Your task to perform on an android device: turn on showing notifications on the lock screen Image 0: 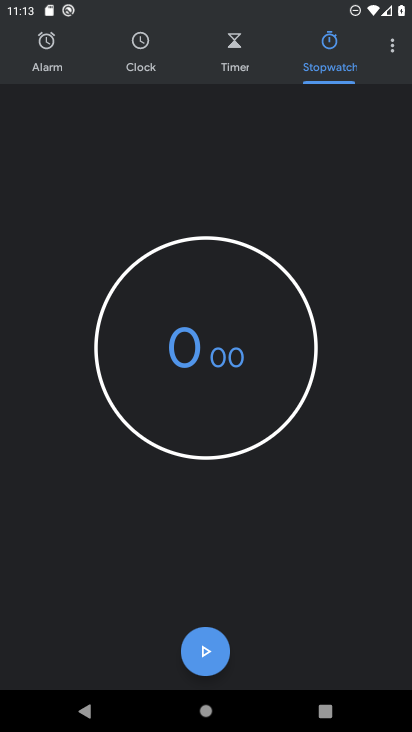
Step 0: press home button
Your task to perform on an android device: turn on showing notifications on the lock screen Image 1: 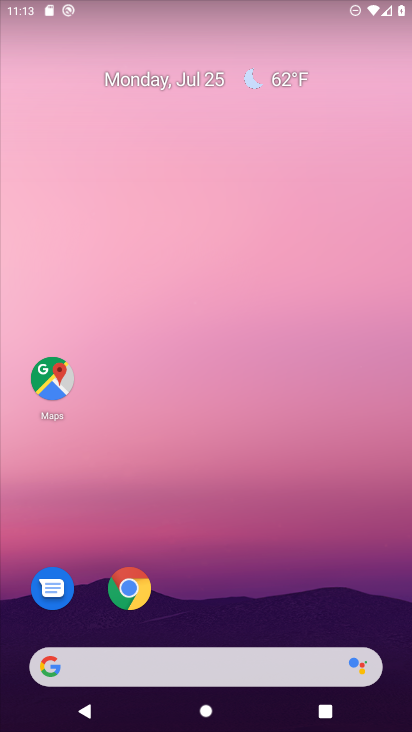
Step 1: drag from (50, 549) to (205, 192)
Your task to perform on an android device: turn on showing notifications on the lock screen Image 2: 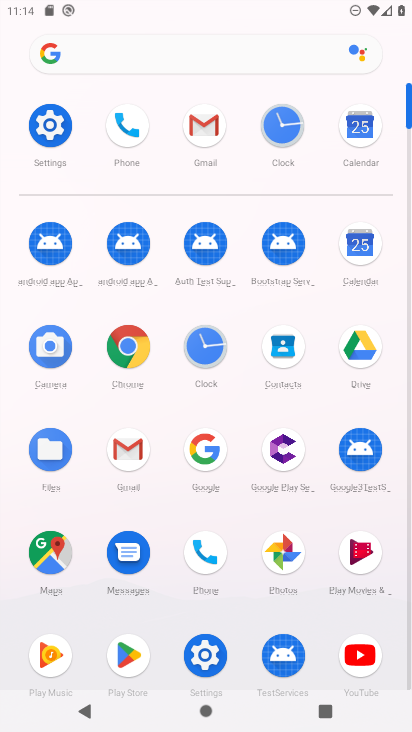
Step 2: click (36, 118)
Your task to perform on an android device: turn on showing notifications on the lock screen Image 3: 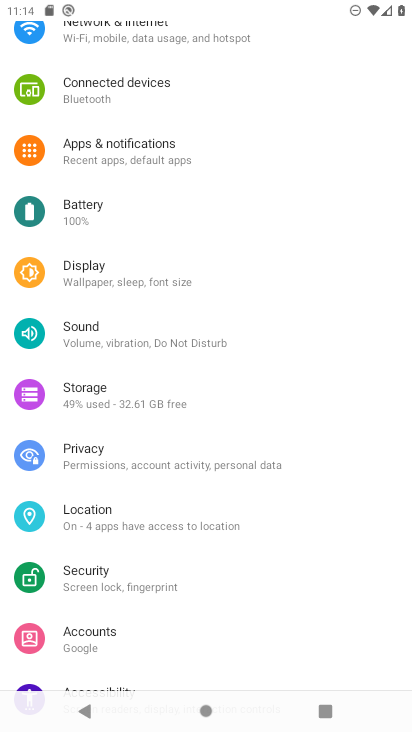
Step 3: click (166, 168)
Your task to perform on an android device: turn on showing notifications on the lock screen Image 4: 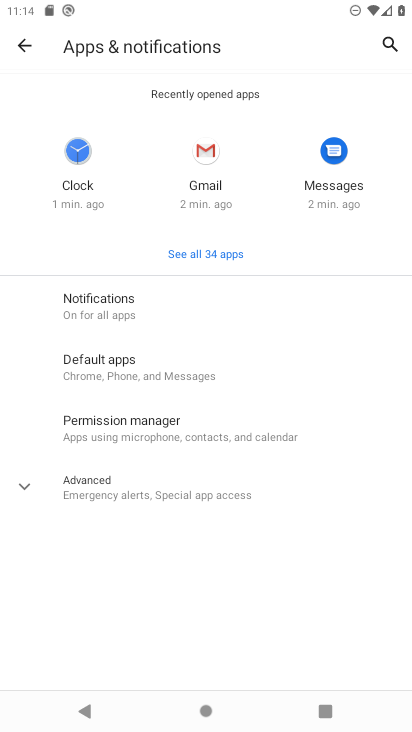
Step 4: click (119, 307)
Your task to perform on an android device: turn on showing notifications on the lock screen Image 5: 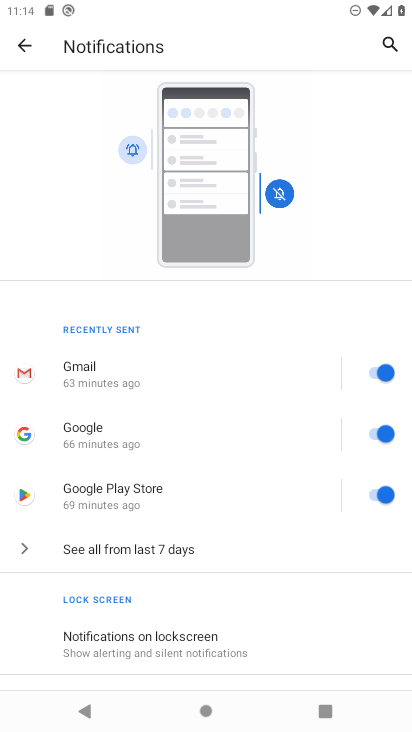
Step 5: click (164, 634)
Your task to perform on an android device: turn on showing notifications on the lock screen Image 6: 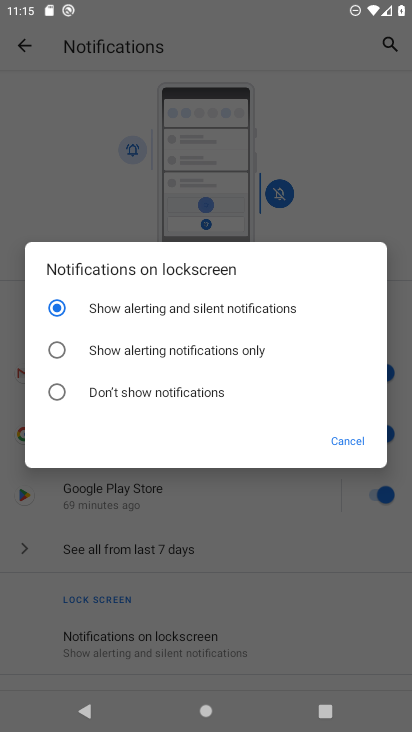
Step 6: task complete